Your task to perform on an android device: What's the weather? Image 0: 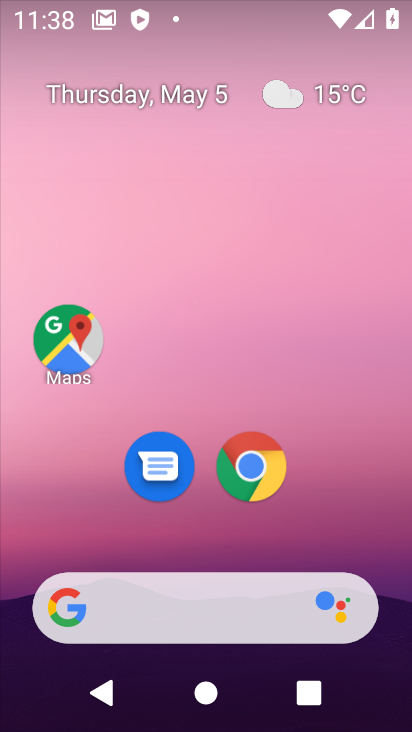
Step 0: click (329, 108)
Your task to perform on an android device: What's the weather? Image 1: 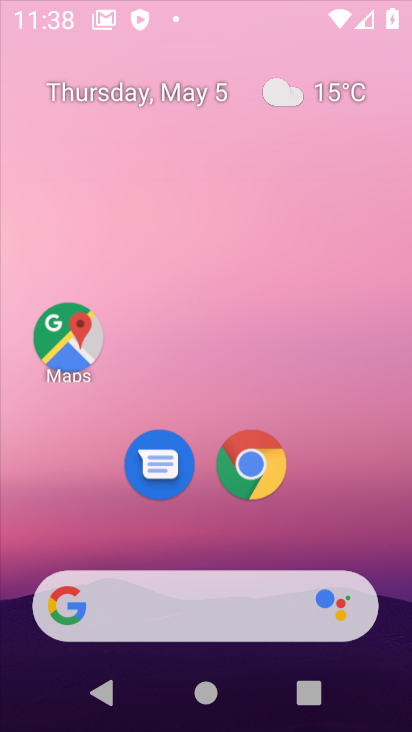
Step 1: click (328, 91)
Your task to perform on an android device: What's the weather? Image 2: 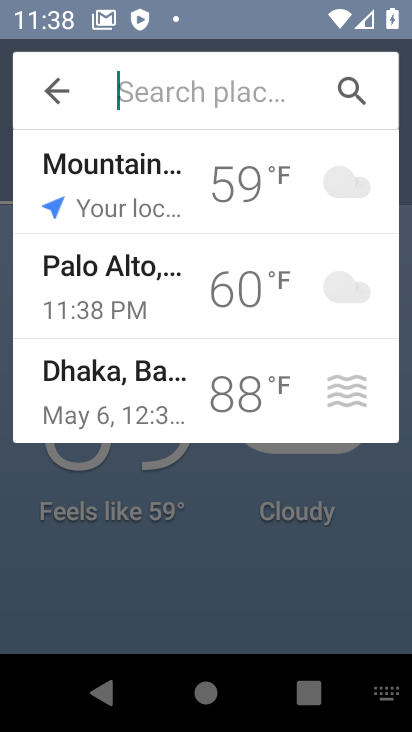
Step 2: task complete